Your task to perform on an android device: Empty the shopping cart on walmart. Add "razer blade" to the cart on walmart, then select checkout. Image 0: 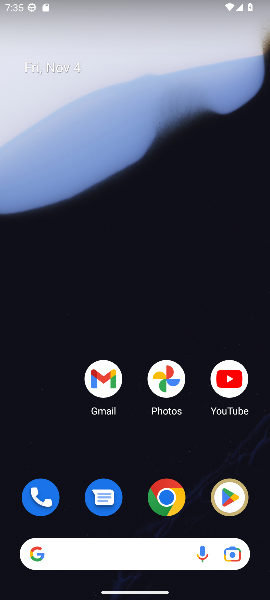
Step 0: click (163, 503)
Your task to perform on an android device: Empty the shopping cart on walmart. Add "razer blade" to the cart on walmart, then select checkout. Image 1: 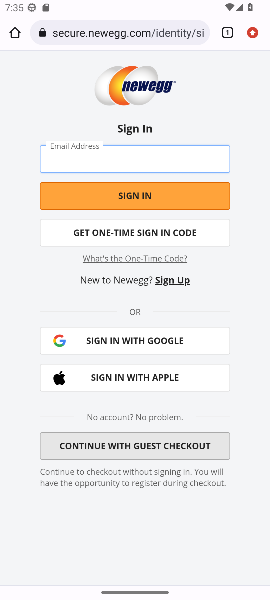
Step 1: click (67, 31)
Your task to perform on an android device: Empty the shopping cart on walmart. Add "razer blade" to the cart on walmart, then select checkout. Image 2: 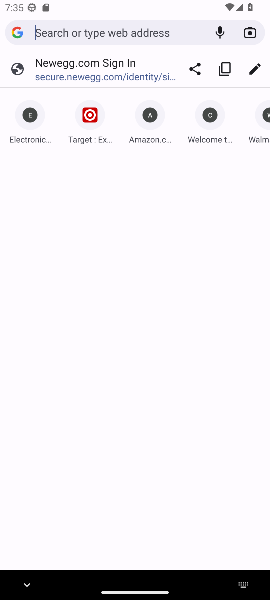
Step 2: type "walmart.com"
Your task to perform on an android device: Empty the shopping cart on walmart. Add "razer blade" to the cart on walmart, then select checkout. Image 3: 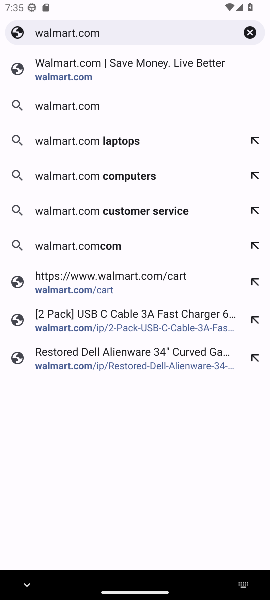
Step 3: click (82, 78)
Your task to perform on an android device: Empty the shopping cart on walmart. Add "razer blade" to the cart on walmart, then select checkout. Image 4: 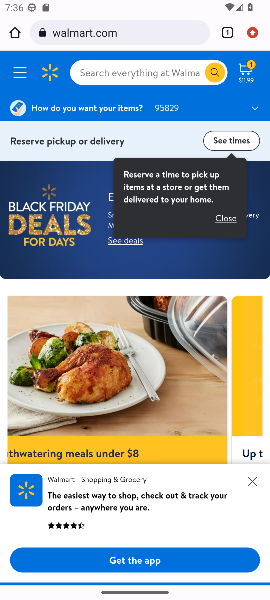
Step 4: click (244, 72)
Your task to perform on an android device: Empty the shopping cart on walmart. Add "razer blade" to the cart on walmart, then select checkout. Image 5: 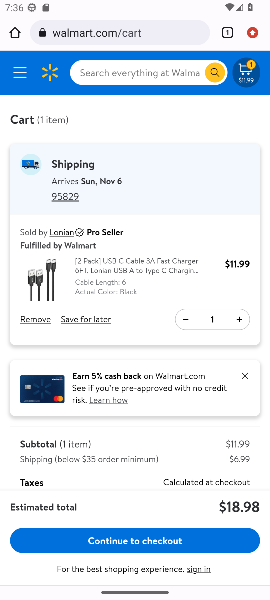
Step 5: click (29, 323)
Your task to perform on an android device: Empty the shopping cart on walmart. Add "razer blade" to the cart on walmart, then select checkout. Image 6: 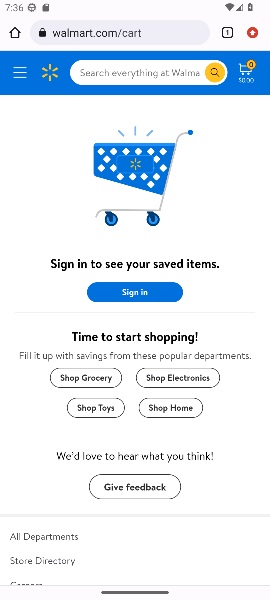
Step 6: click (150, 69)
Your task to perform on an android device: Empty the shopping cart on walmart. Add "razer blade" to the cart on walmart, then select checkout. Image 7: 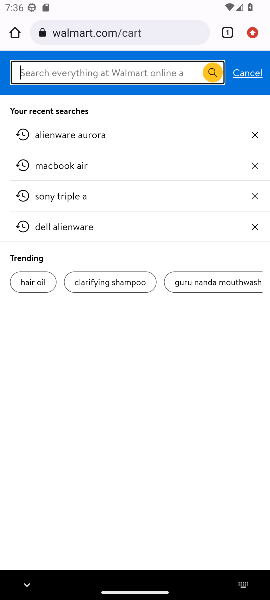
Step 7: type "razer blade"
Your task to perform on an android device: Empty the shopping cart on walmart. Add "razer blade" to the cart on walmart, then select checkout. Image 8: 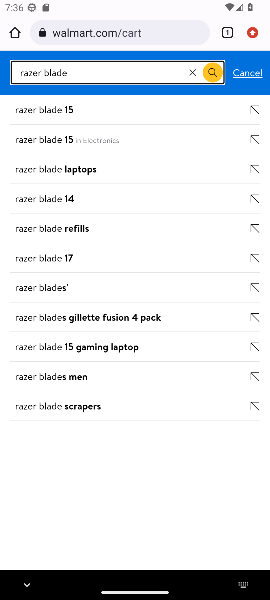
Step 8: click (216, 75)
Your task to perform on an android device: Empty the shopping cart on walmart. Add "razer blade" to the cart on walmart, then select checkout. Image 9: 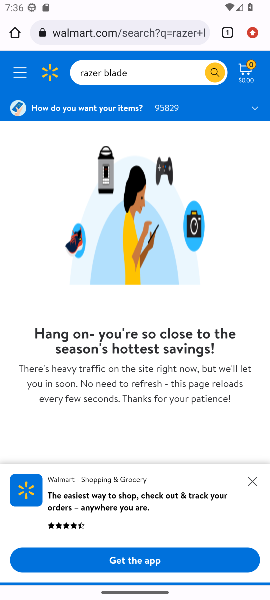
Step 9: drag from (140, 392) to (151, 285)
Your task to perform on an android device: Empty the shopping cart on walmart. Add "razer blade" to the cart on walmart, then select checkout. Image 10: 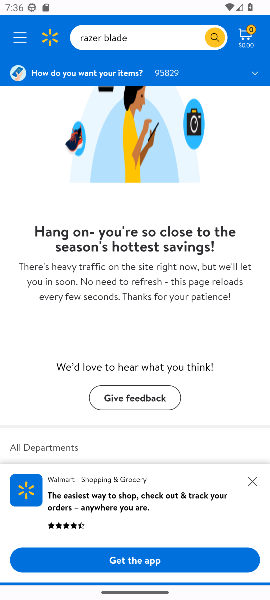
Step 10: click (251, 480)
Your task to perform on an android device: Empty the shopping cart on walmart. Add "razer blade" to the cart on walmart, then select checkout. Image 11: 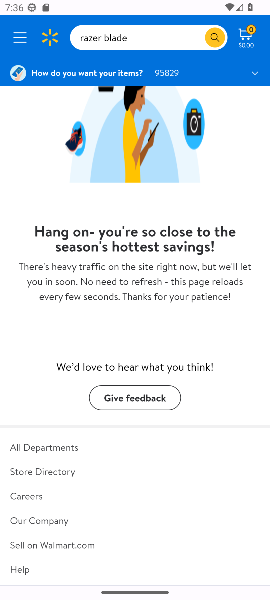
Step 11: drag from (161, 235) to (163, 436)
Your task to perform on an android device: Empty the shopping cart on walmart. Add "razer blade" to the cart on walmart, then select checkout. Image 12: 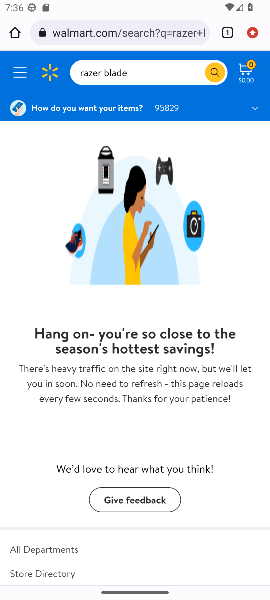
Step 12: click (214, 77)
Your task to perform on an android device: Empty the shopping cart on walmart. Add "razer blade" to the cart on walmart, then select checkout. Image 13: 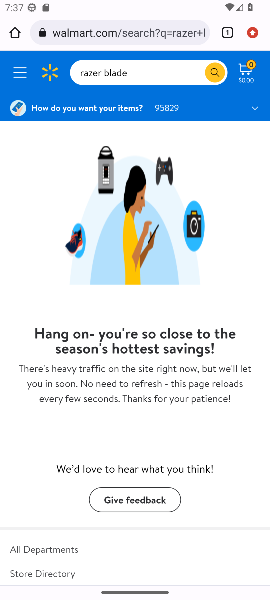
Step 13: click (215, 73)
Your task to perform on an android device: Empty the shopping cart on walmart. Add "razer blade" to the cart on walmart, then select checkout. Image 14: 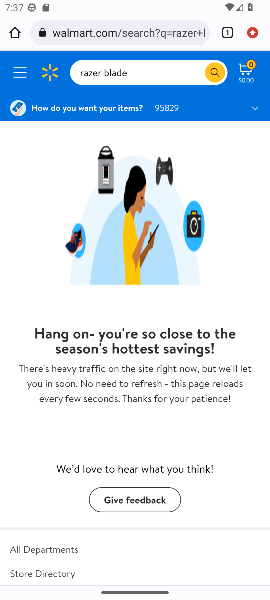
Step 14: task complete